Your task to perform on an android device: Find coffee shops on Maps Image 0: 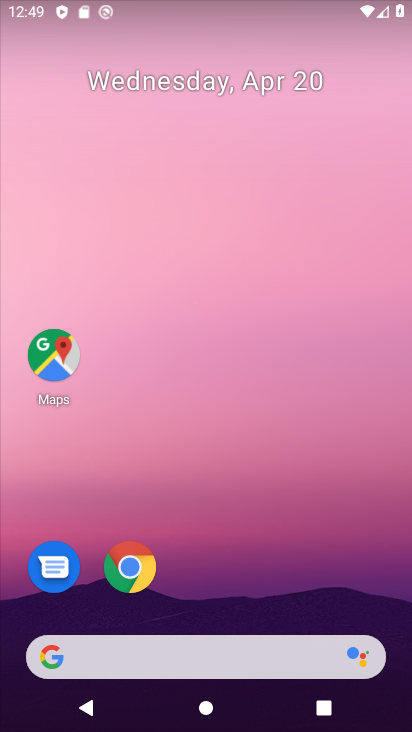
Step 0: click (60, 359)
Your task to perform on an android device: Find coffee shops on Maps Image 1: 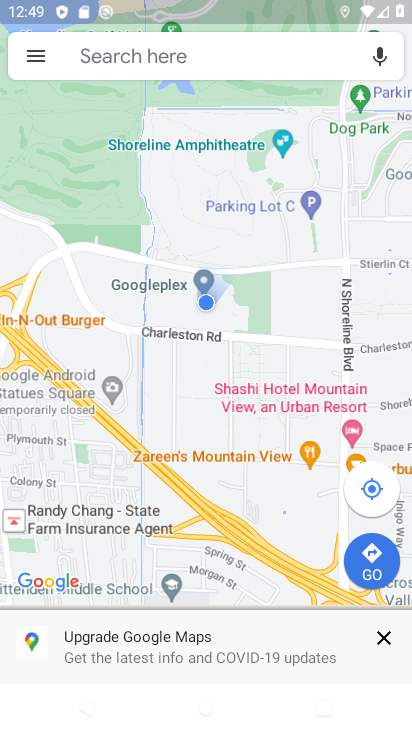
Step 1: click (383, 637)
Your task to perform on an android device: Find coffee shops on Maps Image 2: 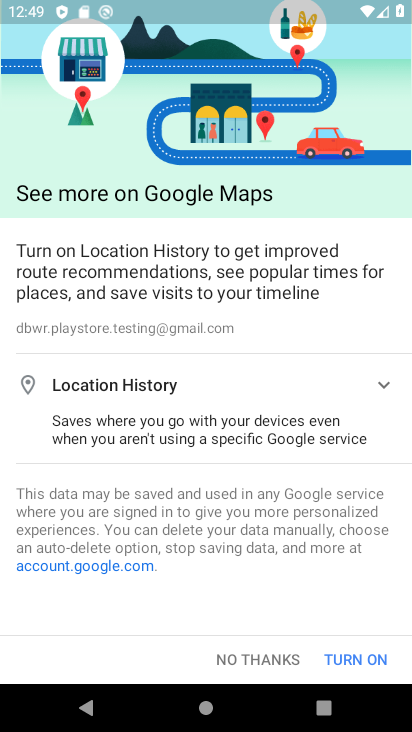
Step 2: click (267, 672)
Your task to perform on an android device: Find coffee shops on Maps Image 3: 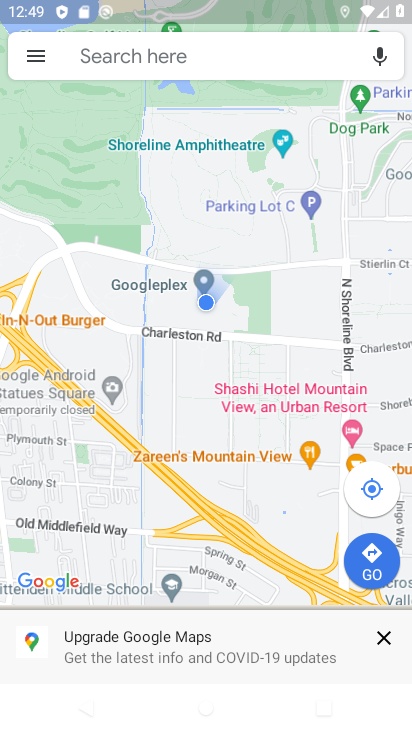
Step 3: click (134, 53)
Your task to perform on an android device: Find coffee shops on Maps Image 4: 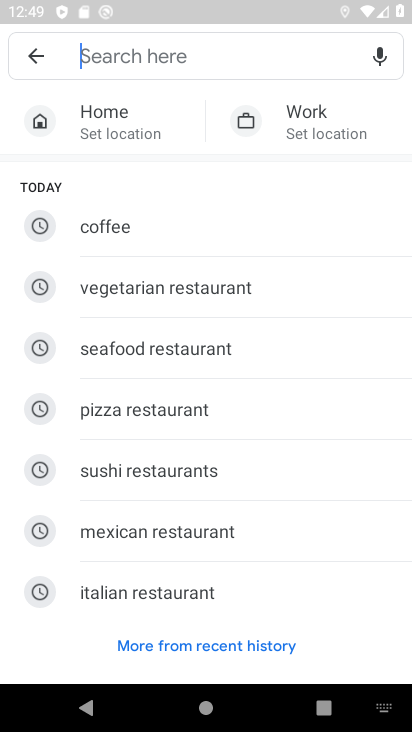
Step 4: click (107, 223)
Your task to perform on an android device: Find coffee shops on Maps Image 5: 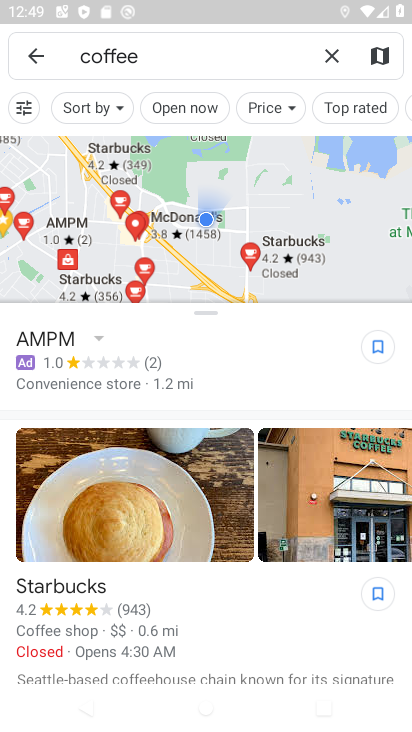
Step 5: task complete